Your task to perform on an android device: turn off javascript in the chrome app Image 0: 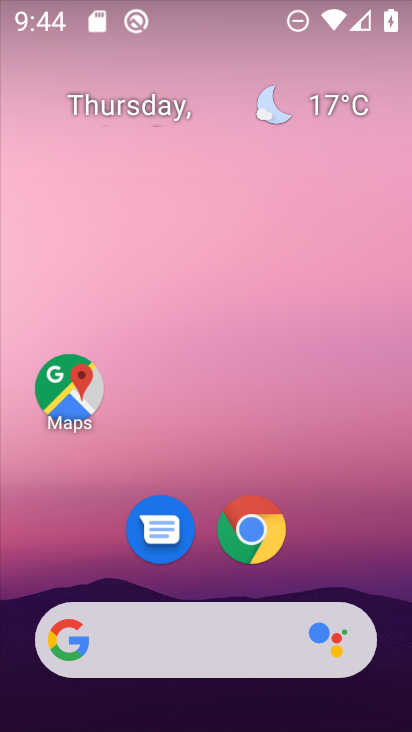
Step 0: drag from (400, 711) to (363, 79)
Your task to perform on an android device: turn off javascript in the chrome app Image 1: 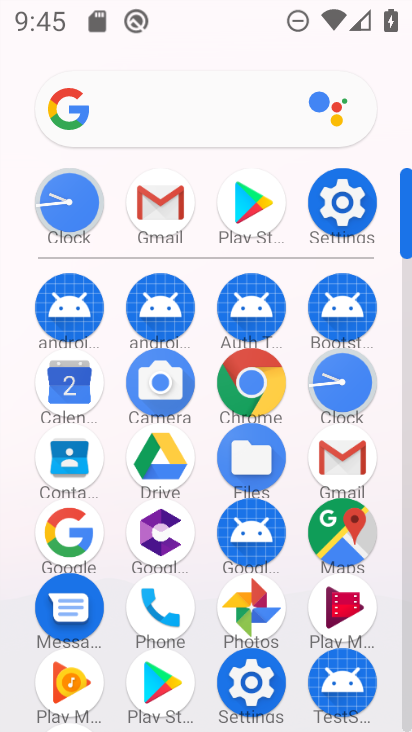
Step 1: click (234, 379)
Your task to perform on an android device: turn off javascript in the chrome app Image 2: 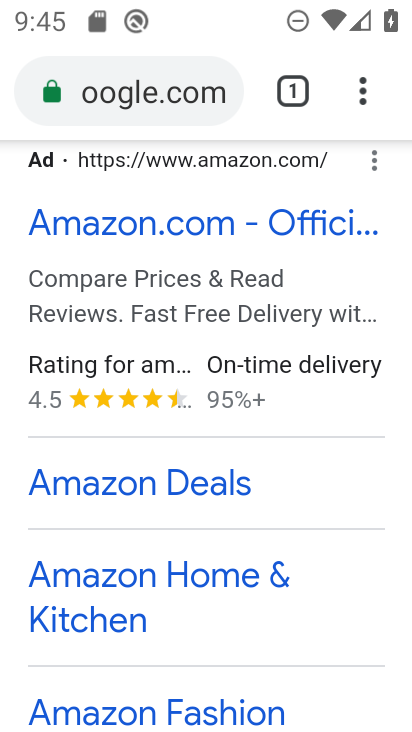
Step 2: click (361, 95)
Your task to perform on an android device: turn off javascript in the chrome app Image 3: 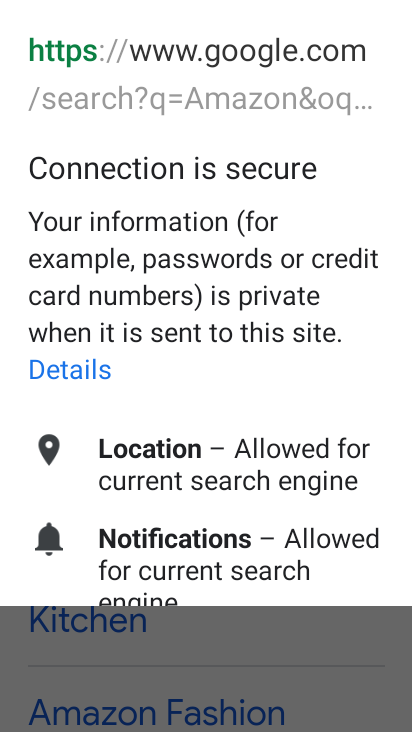
Step 3: press back button
Your task to perform on an android device: turn off javascript in the chrome app Image 4: 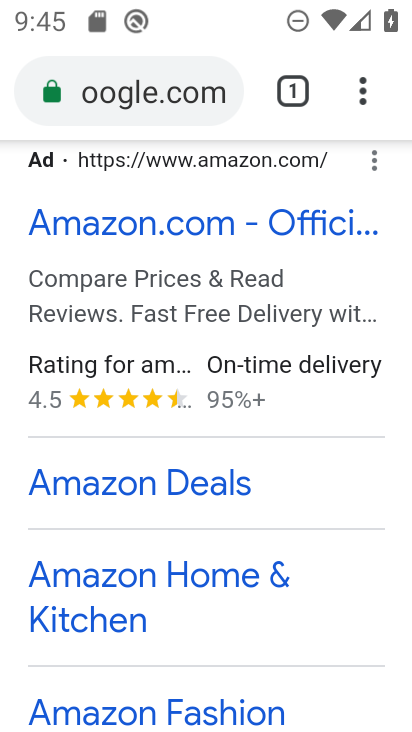
Step 4: click (361, 88)
Your task to perform on an android device: turn off javascript in the chrome app Image 5: 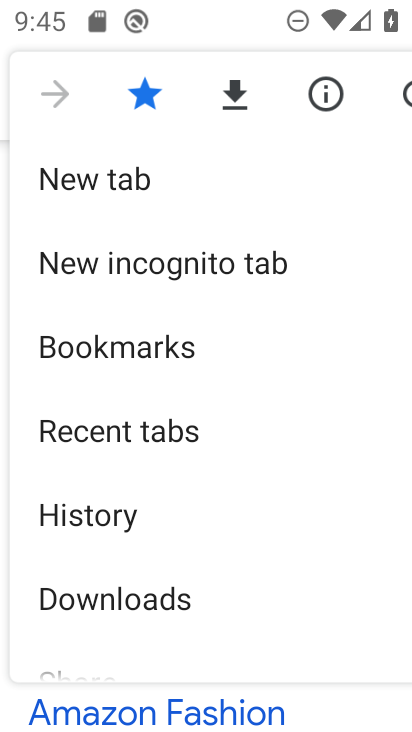
Step 5: drag from (312, 599) to (302, 309)
Your task to perform on an android device: turn off javascript in the chrome app Image 6: 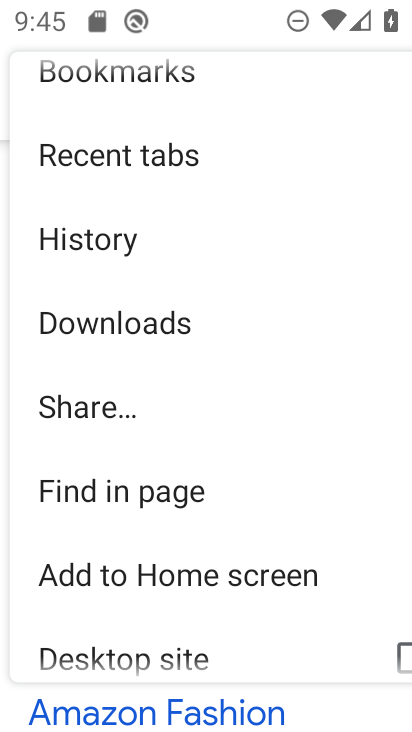
Step 6: drag from (286, 620) to (302, 292)
Your task to perform on an android device: turn off javascript in the chrome app Image 7: 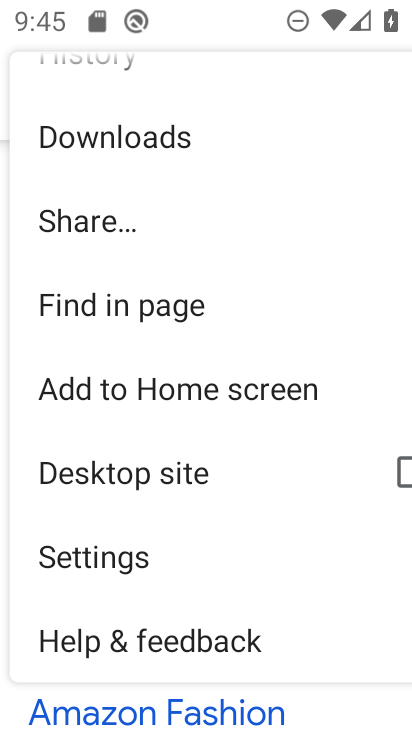
Step 7: click (93, 556)
Your task to perform on an android device: turn off javascript in the chrome app Image 8: 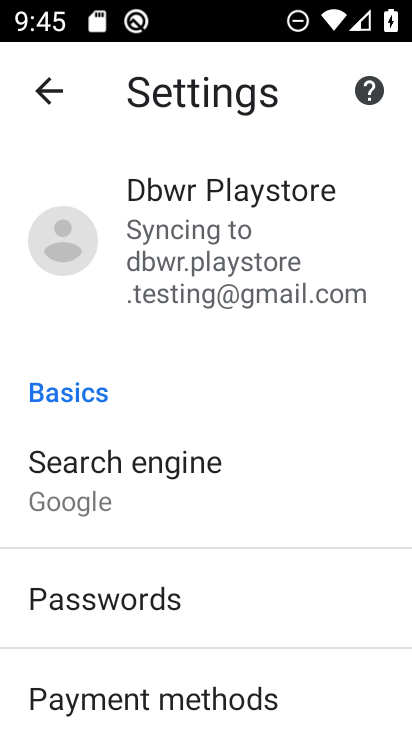
Step 8: drag from (312, 573) to (328, 248)
Your task to perform on an android device: turn off javascript in the chrome app Image 9: 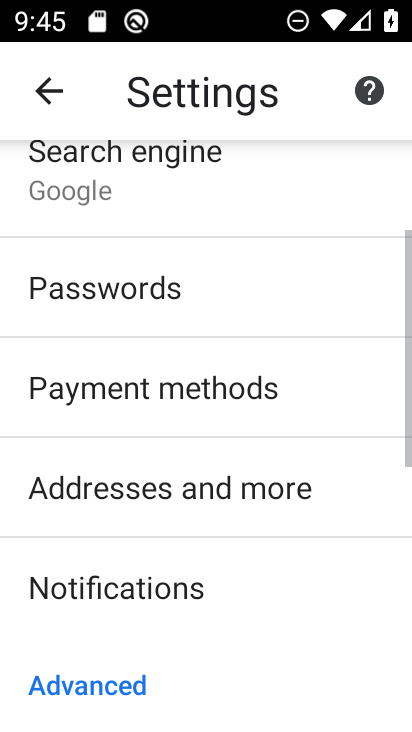
Step 9: drag from (291, 672) to (302, 354)
Your task to perform on an android device: turn off javascript in the chrome app Image 10: 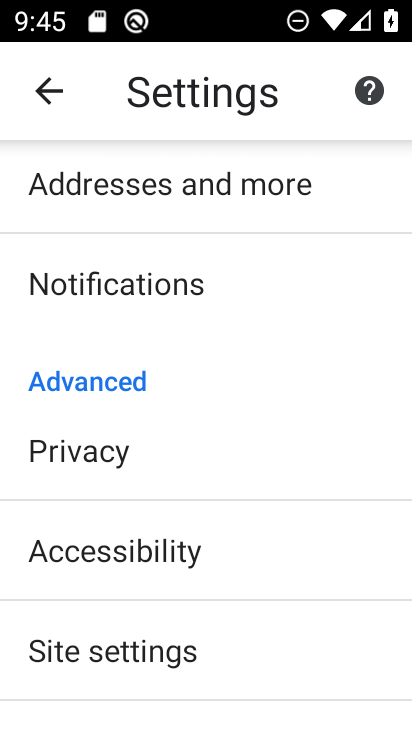
Step 10: drag from (285, 668) to (321, 411)
Your task to perform on an android device: turn off javascript in the chrome app Image 11: 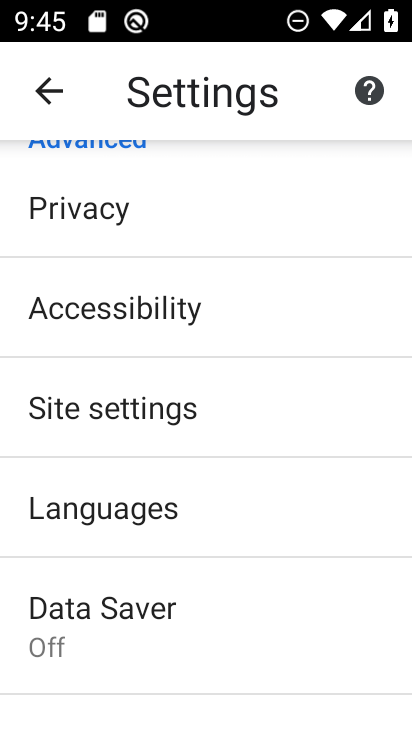
Step 11: drag from (256, 643) to (280, 208)
Your task to perform on an android device: turn off javascript in the chrome app Image 12: 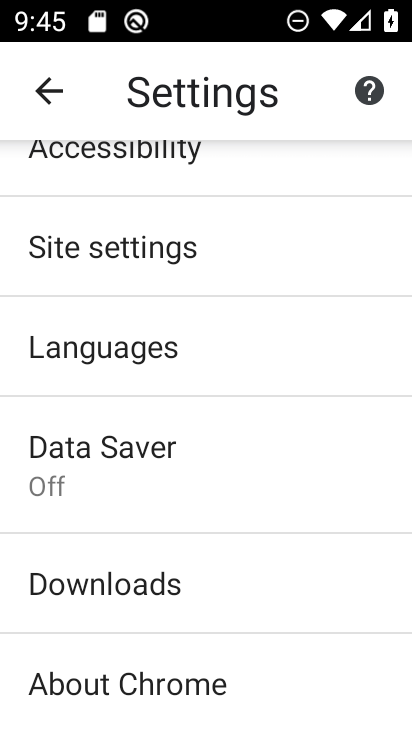
Step 12: drag from (285, 675) to (298, 271)
Your task to perform on an android device: turn off javascript in the chrome app Image 13: 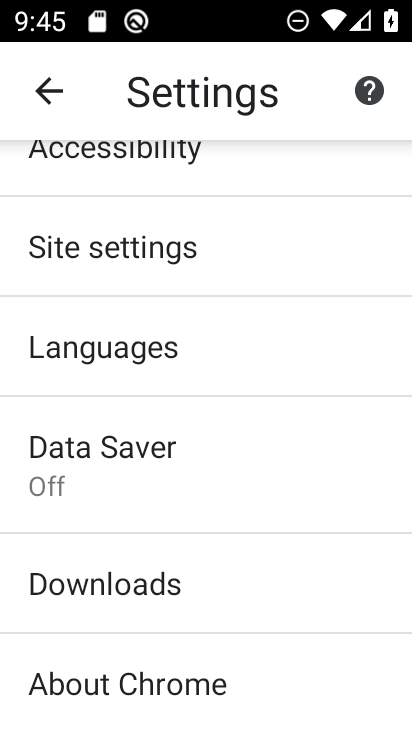
Step 13: click (96, 258)
Your task to perform on an android device: turn off javascript in the chrome app Image 14: 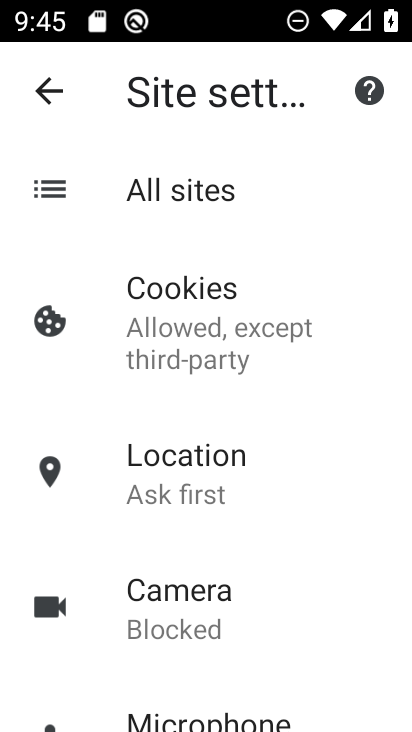
Step 14: drag from (320, 686) to (325, 212)
Your task to perform on an android device: turn off javascript in the chrome app Image 15: 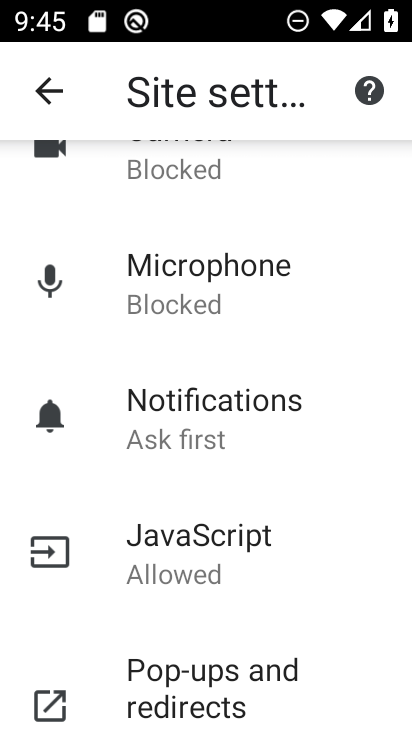
Step 15: click (164, 548)
Your task to perform on an android device: turn off javascript in the chrome app Image 16: 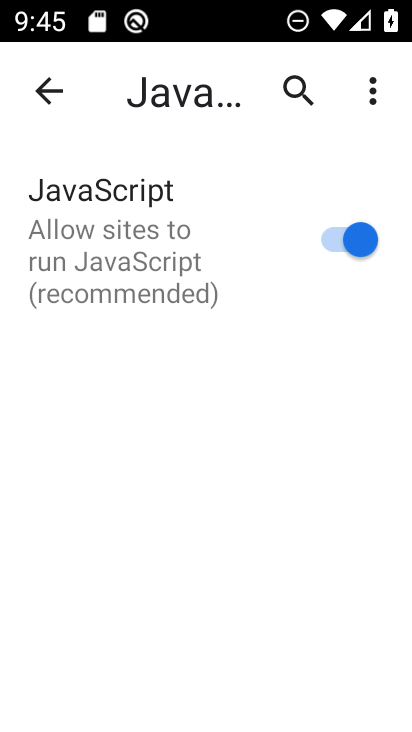
Step 16: click (331, 230)
Your task to perform on an android device: turn off javascript in the chrome app Image 17: 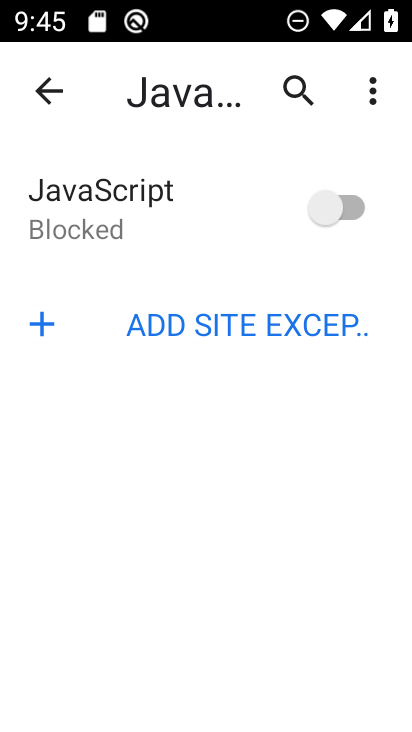
Step 17: task complete